Your task to perform on an android device: open app "Gboard" (install if not already installed) Image 0: 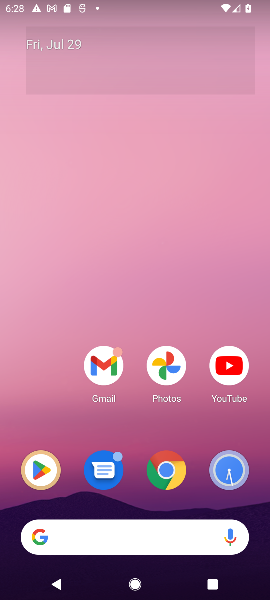
Step 0: press home button
Your task to perform on an android device: open app "Gboard" (install if not already installed) Image 1: 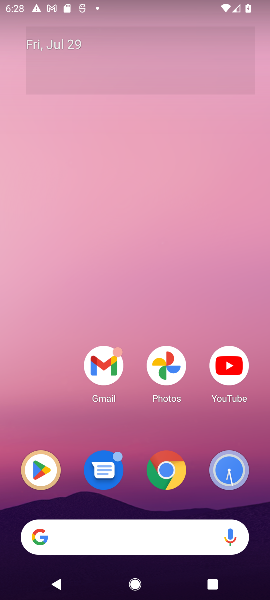
Step 1: drag from (200, 403) to (181, 115)
Your task to perform on an android device: open app "Gboard" (install if not already installed) Image 2: 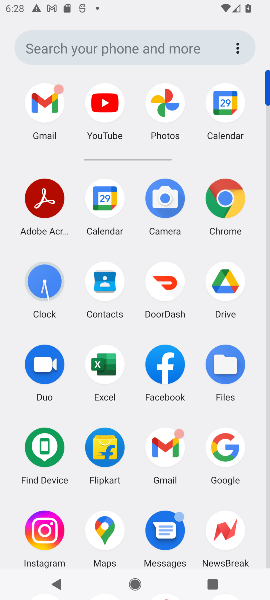
Step 2: drag from (199, 398) to (201, 130)
Your task to perform on an android device: open app "Gboard" (install if not already installed) Image 3: 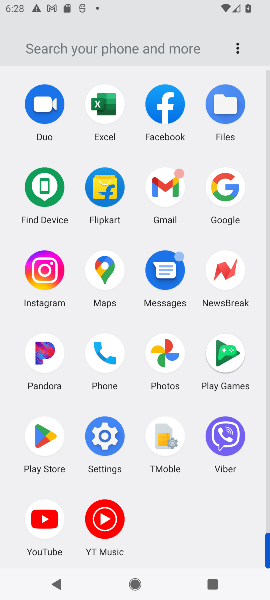
Step 3: click (44, 437)
Your task to perform on an android device: open app "Gboard" (install if not already installed) Image 4: 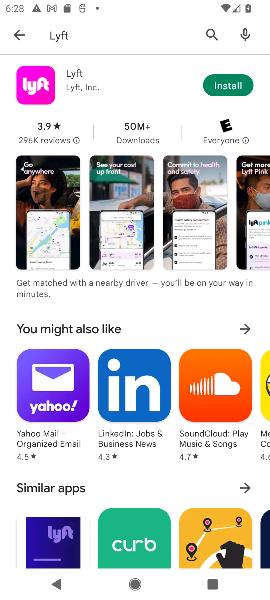
Step 4: click (144, 37)
Your task to perform on an android device: open app "Gboard" (install if not already installed) Image 5: 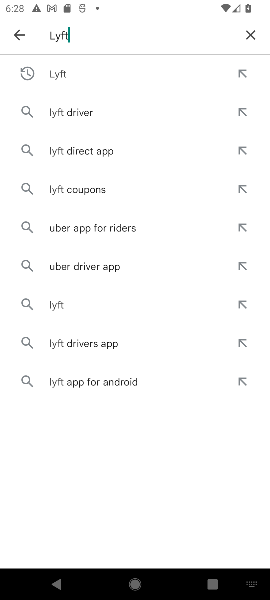
Step 5: click (250, 29)
Your task to perform on an android device: open app "Gboard" (install if not already installed) Image 6: 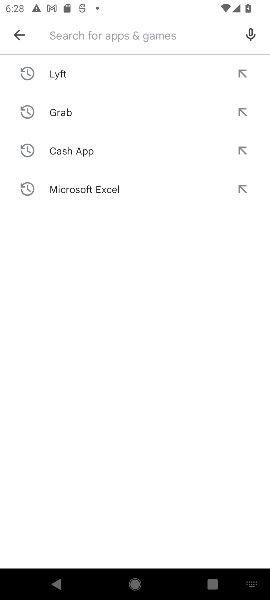
Step 6: type "Gboard"
Your task to perform on an android device: open app "Gboard" (install if not already installed) Image 7: 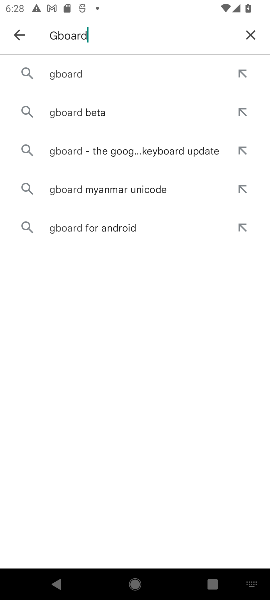
Step 7: press enter
Your task to perform on an android device: open app "Gboard" (install if not already installed) Image 8: 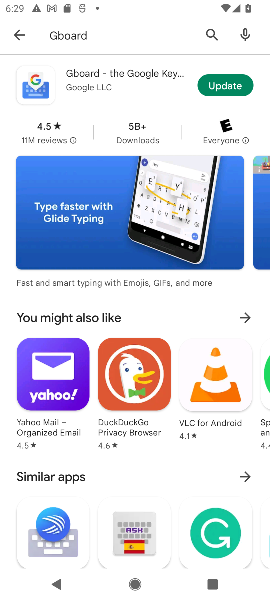
Step 8: click (126, 68)
Your task to perform on an android device: open app "Gboard" (install if not already installed) Image 9: 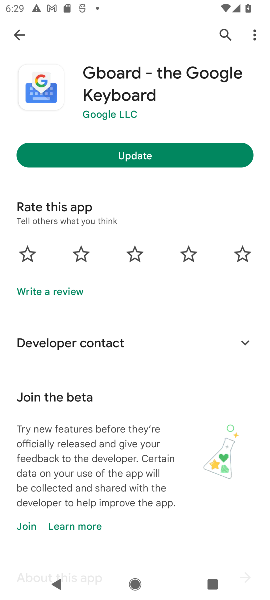
Step 9: task complete